Your task to perform on an android device: turn on the 12-hour format for clock Image 0: 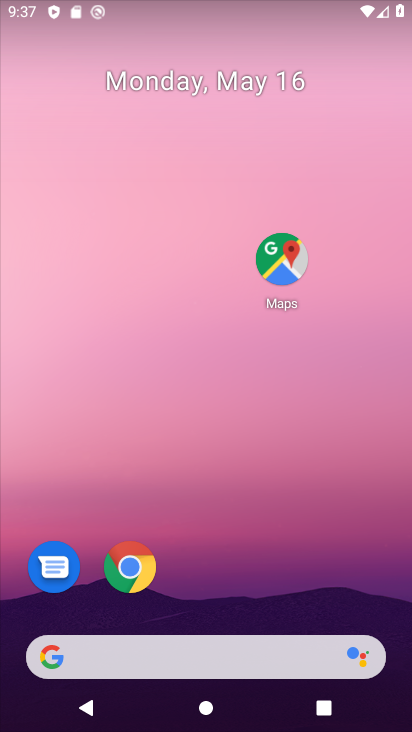
Step 0: drag from (236, 547) to (228, 42)
Your task to perform on an android device: turn on the 12-hour format for clock Image 1: 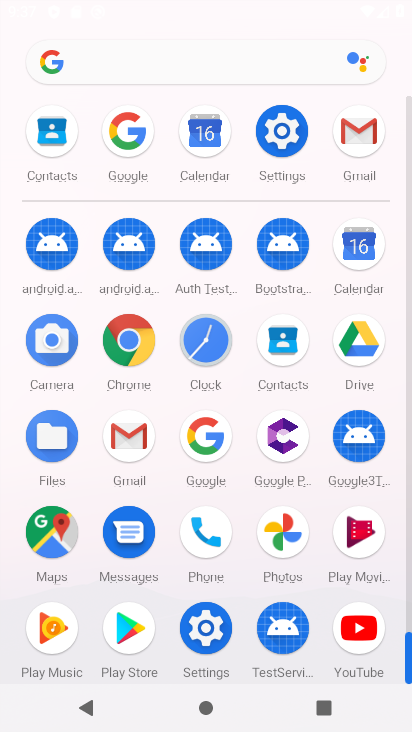
Step 1: click (198, 342)
Your task to perform on an android device: turn on the 12-hour format for clock Image 2: 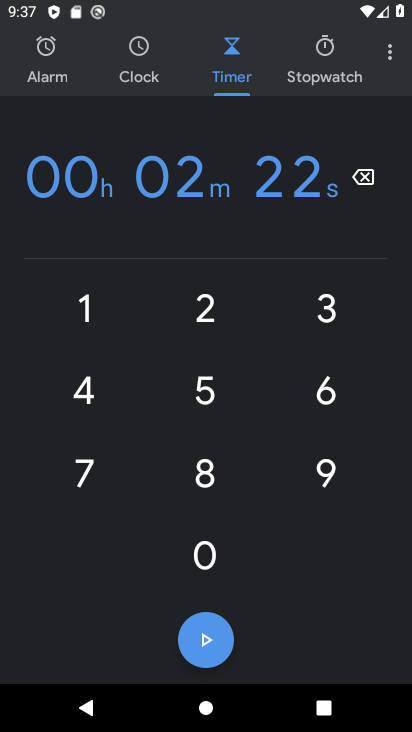
Step 2: click (379, 57)
Your task to perform on an android device: turn on the 12-hour format for clock Image 3: 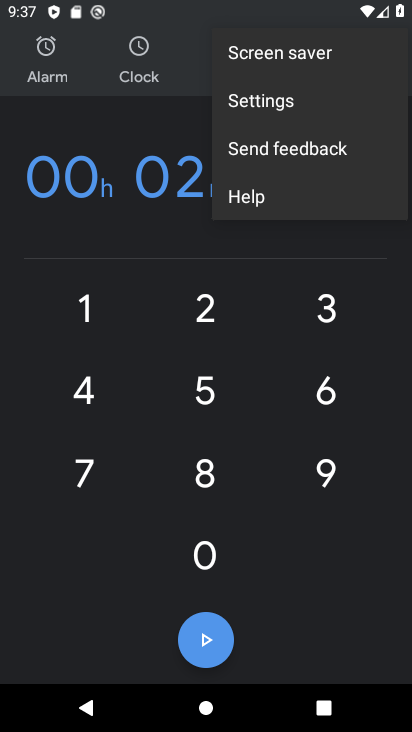
Step 3: click (283, 108)
Your task to perform on an android device: turn on the 12-hour format for clock Image 4: 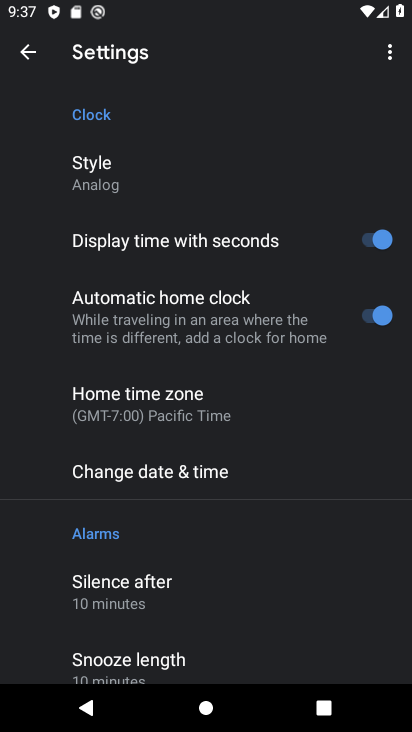
Step 4: drag from (230, 505) to (184, 265)
Your task to perform on an android device: turn on the 12-hour format for clock Image 5: 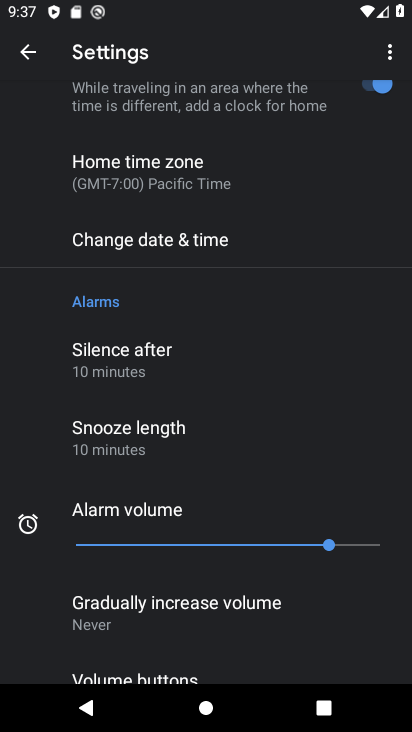
Step 5: click (166, 354)
Your task to perform on an android device: turn on the 12-hour format for clock Image 6: 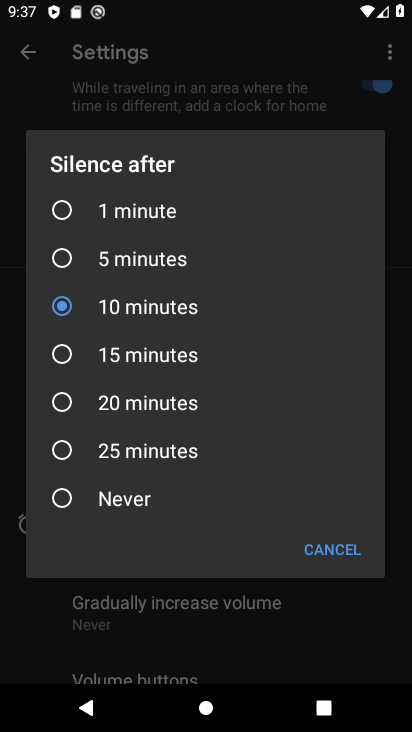
Step 6: click (323, 551)
Your task to perform on an android device: turn on the 12-hour format for clock Image 7: 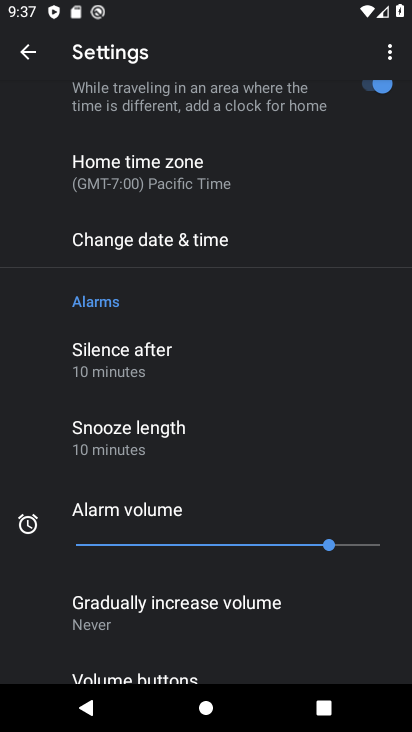
Step 7: click (129, 240)
Your task to perform on an android device: turn on the 12-hour format for clock Image 8: 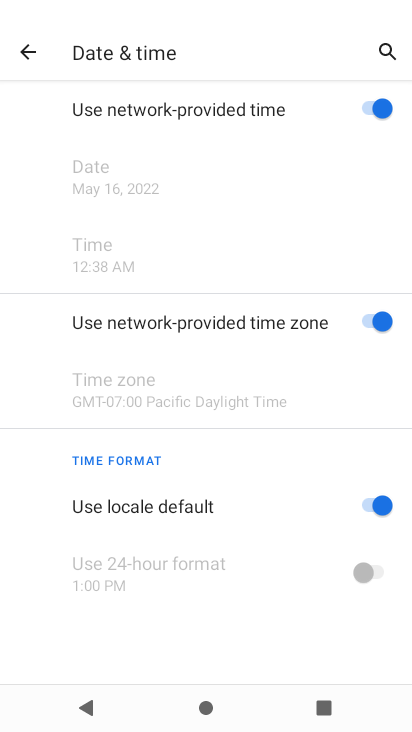
Step 8: drag from (262, 494) to (246, 204)
Your task to perform on an android device: turn on the 12-hour format for clock Image 9: 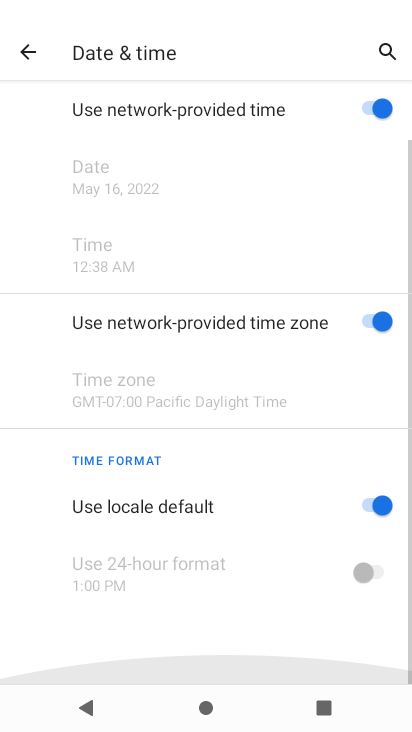
Step 9: click (372, 504)
Your task to perform on an android device: turn on the 12-hour format for clock Image 10: 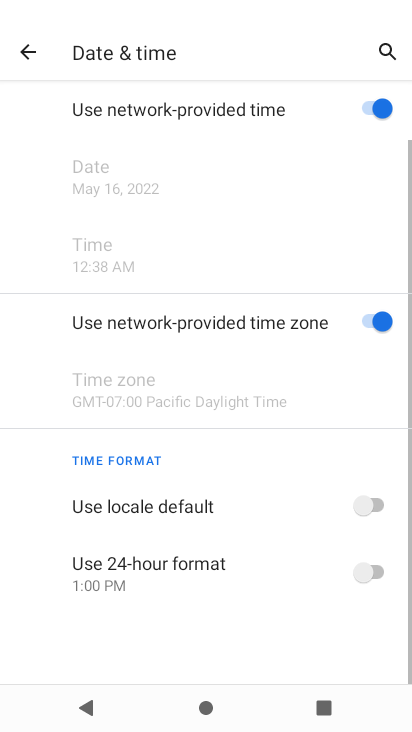
Step 10: click (368, 575)
Your task to perform on an android device: turn on the 12-hour format for clock Image 11: 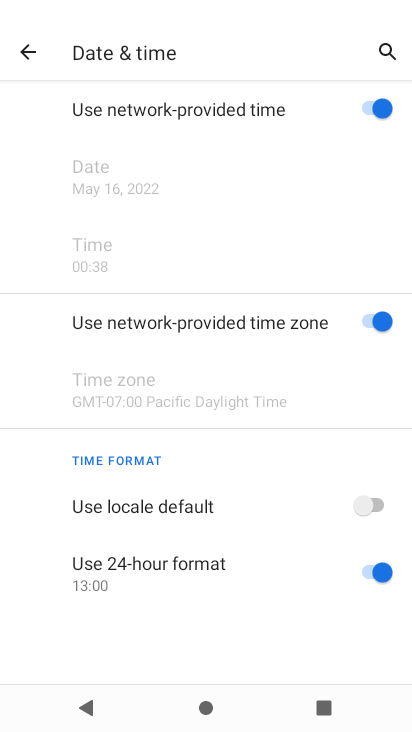
Step 11: task complete